Your task to perform on an android device: set the timer Image 0: 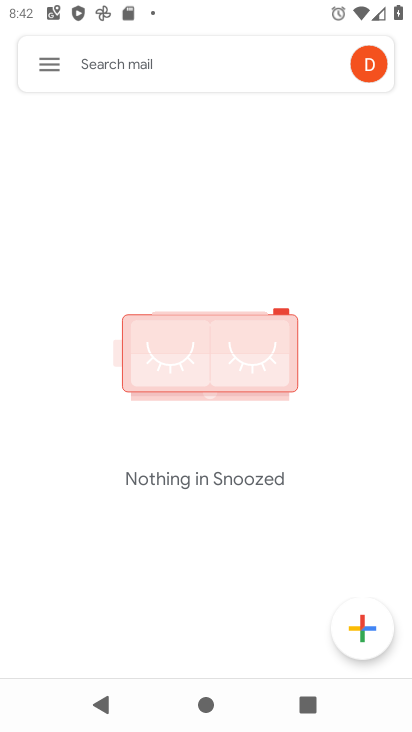
Step 0: press home button
Your task to perform on an android device: set the timer Image 1: 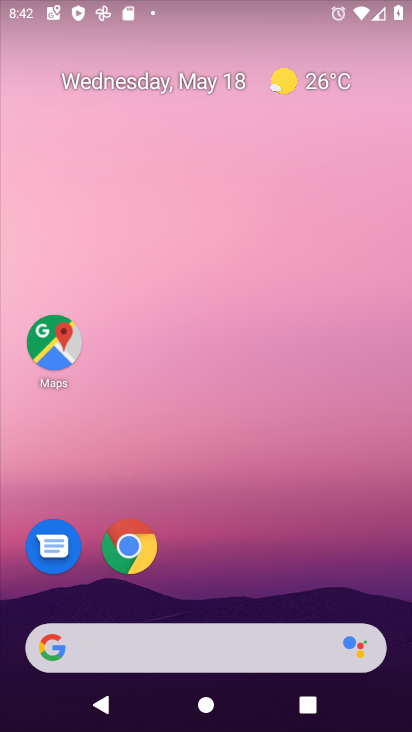
Step 1: drag from (396, 639) to (293, 101)
Your task to perform on an android device: set the timer Image 2: 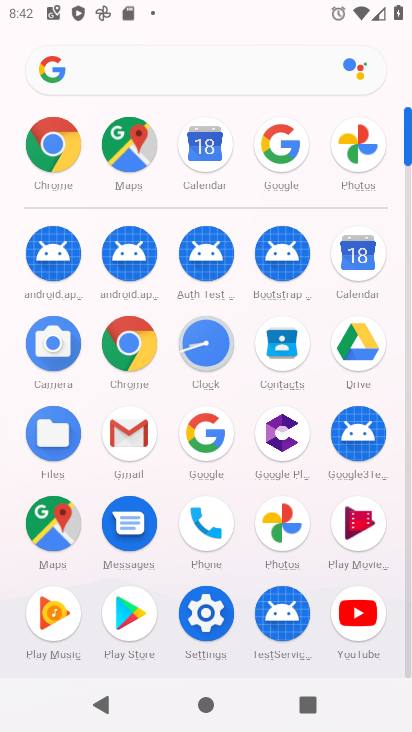
Step 2: click (221, 349)
Your task to perform on an android device: set the timer Image 3: 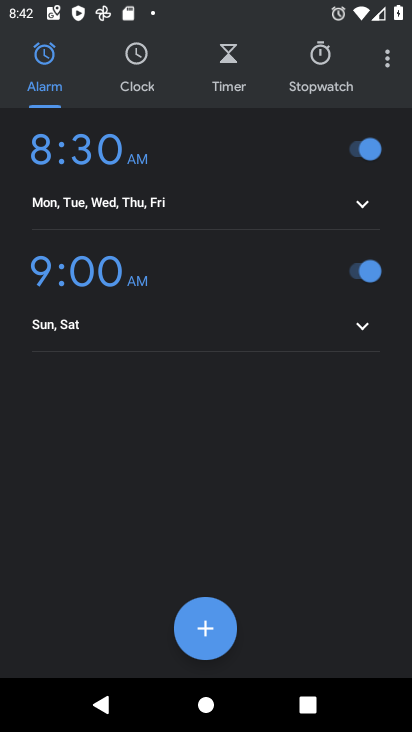
Step 3: click (386, 49)
Your task to perform on an android device: set the timer Image 4: 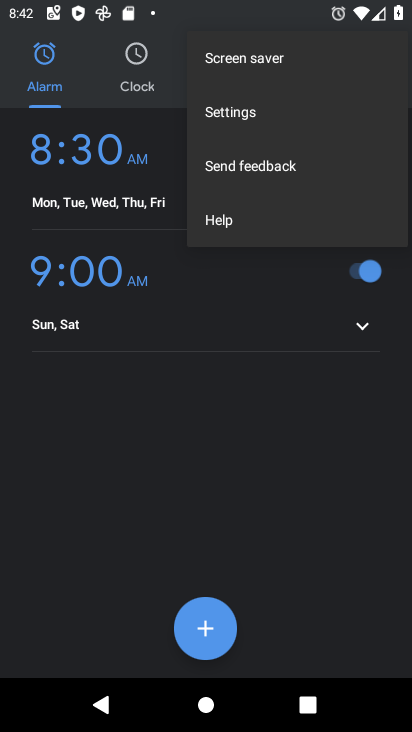
Step 4: click (322, 105)
Your task to perform on an android device: set the timer Image 5: 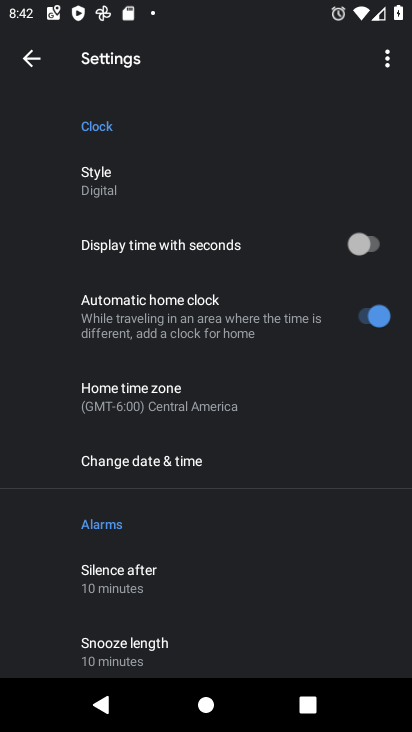
Step 5: click (150, 401)
Your task to perform on an android device: set the timer Image 6: 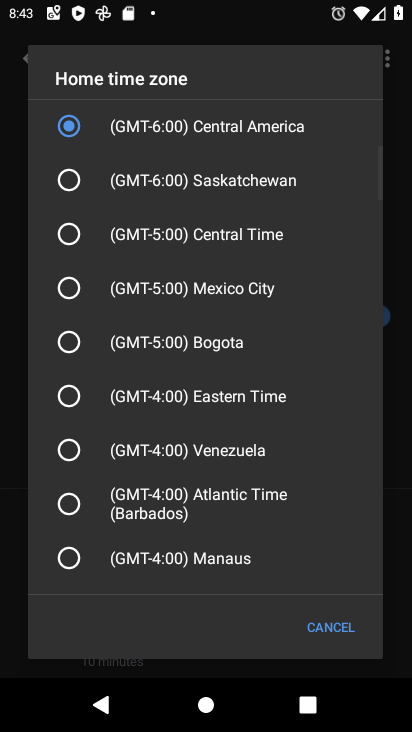
Step 6: click (214, 352)
Your task to perform on an android device: set the timer Image 7: 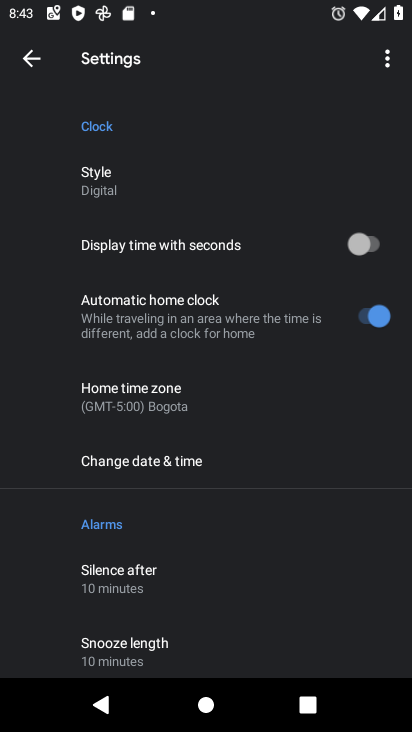
Step 7: task complete